Your task to perform on an android device: turn on the 12-hour format for clock Image 0: 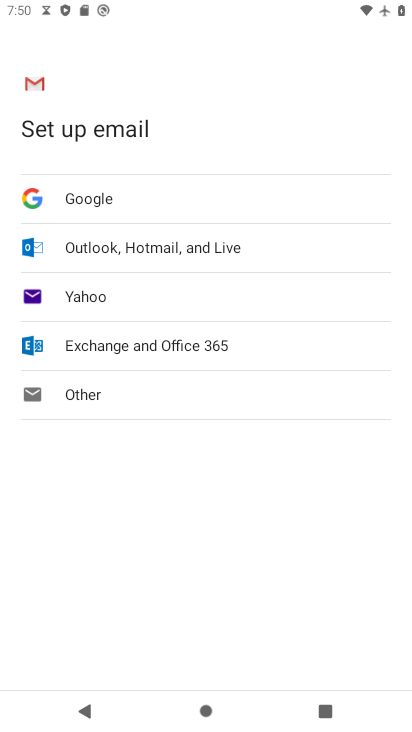
Step 0: press home button
Your task to perform on an android device: turn on the 12-hour format for clock Image 1: 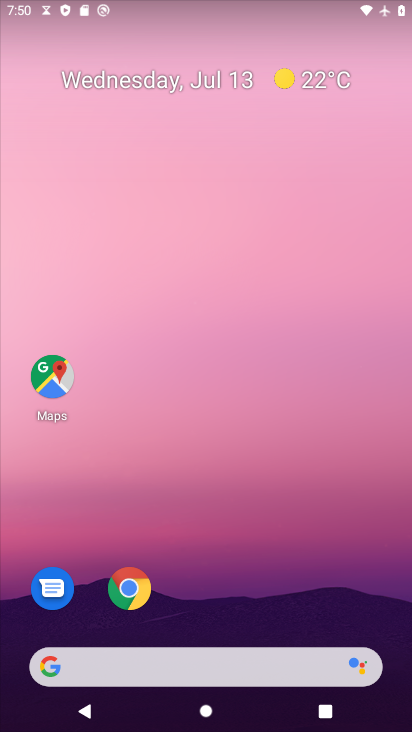
Step 1: drag from (270, 624) to (265, 225)
Your task to perform on an android device: turn on the 12-hour format for clock Image 2: 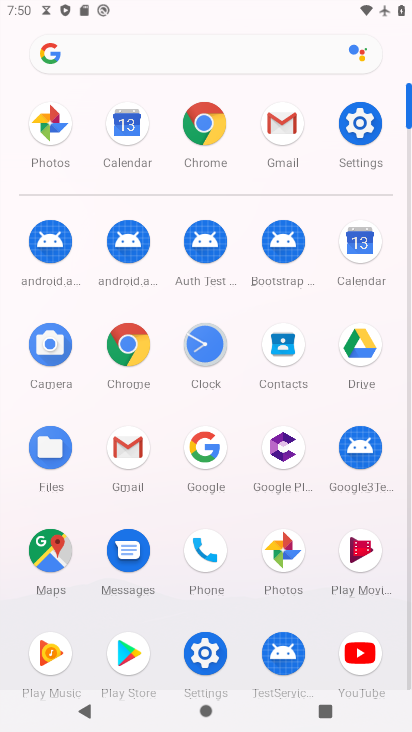
Step 2: click (355, 122)
Your task to perform on an android device: turn on the 12-hour format for clock Image 3: 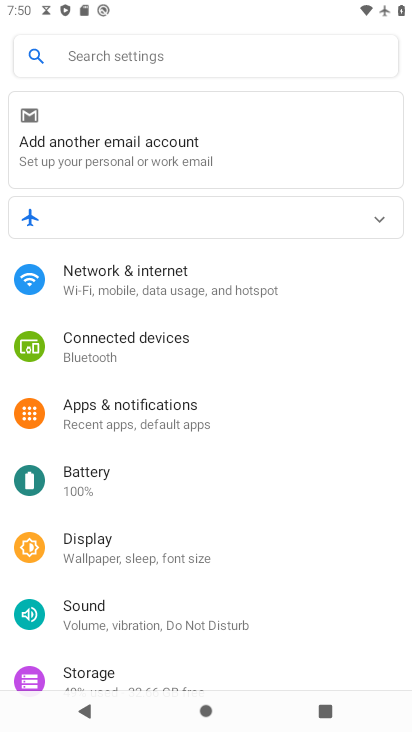
Step 3: press home button
Your task to perform on an android device: turn on the 12-hour format for clock Image 4: 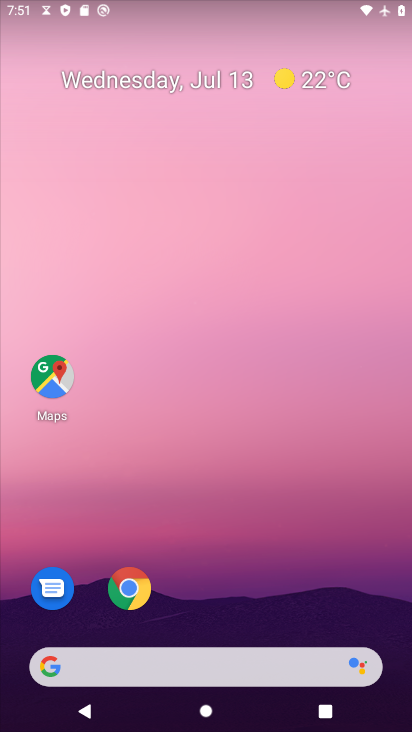
Step 4: drag from (254, 630) to (308, 90)
Your task to perform on an android device: turn on the 12-hour format for clock Image 5: 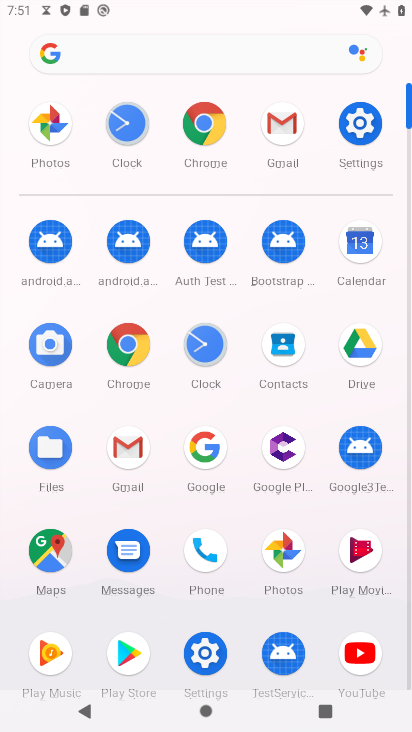
Step 5: click (202, 343)
Your task to perform on an android device: turn on the 12-hour format for clock Image 6: 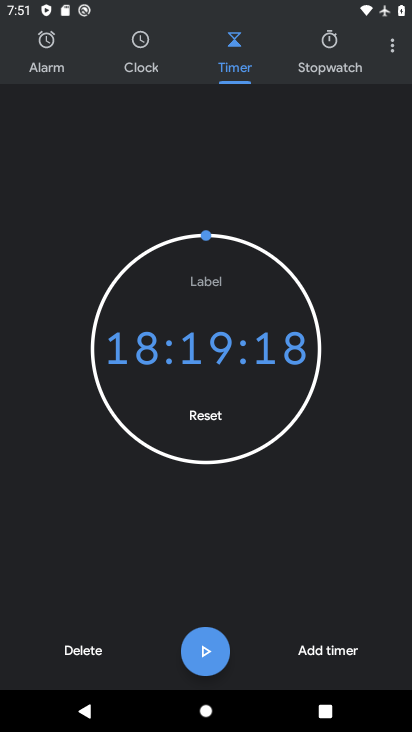
Step 6: click (391, 40)
Your task to perform on an android device: turn on the 12-hour format for clock Image 7: 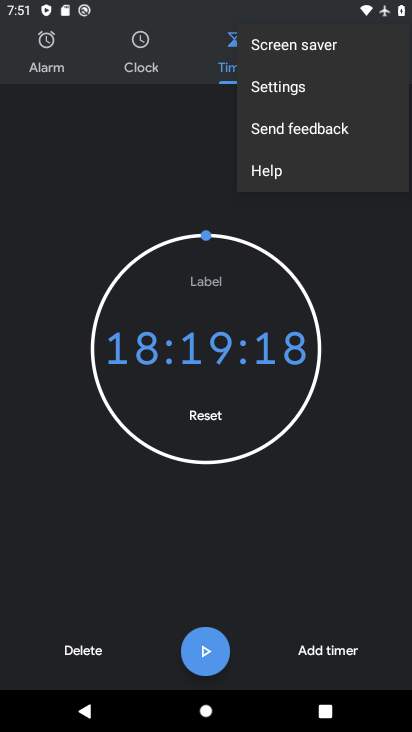
Step 7: click (292, 93)
Your task to perform on an android device: turn on the 12-hour format for clock Image 8: 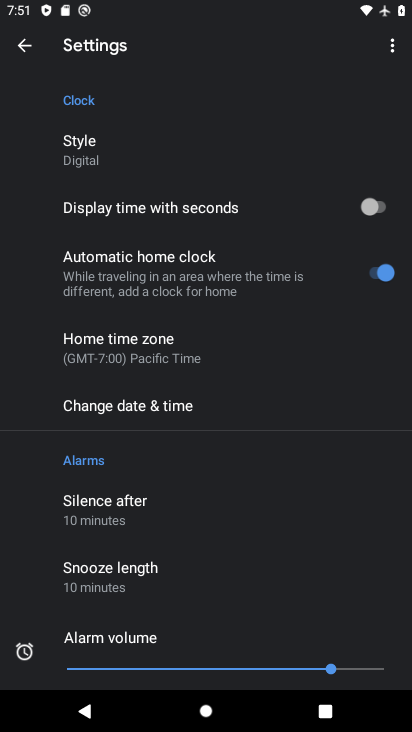
Step 8: click (177, 417)
Your task to perform on an android device: turn on the 12-hour format for clock Image 9: 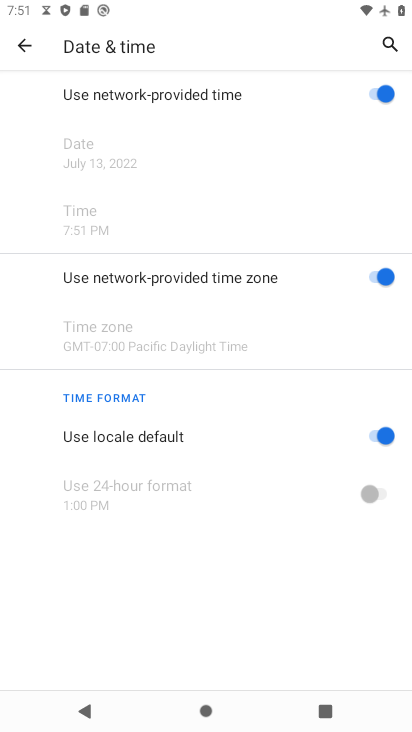
Step 9: click (377, 432)
Your task to perform on an android device: turn on the 12-hour format for clock Image 10: 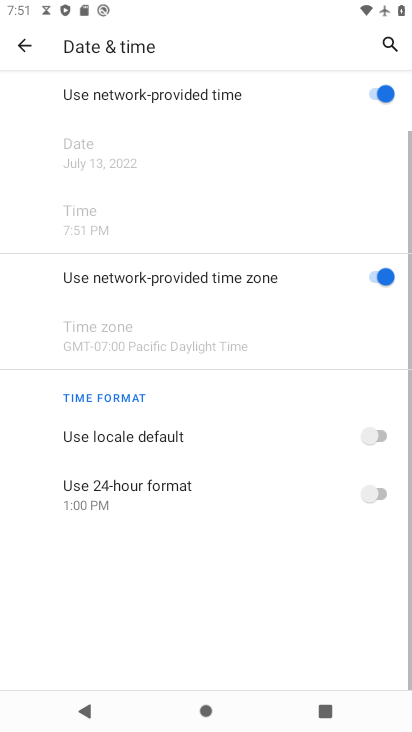
Step 10: click (394, 495)
Your task to perform on an android device: turn on the 12-hour format for clock Image 11: 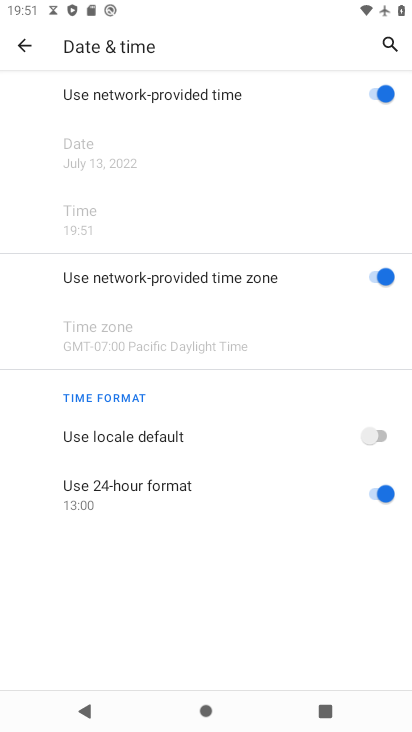
Step 11: task complete